Your task to perform on an android device: change your default location settings in chrome Image 0: 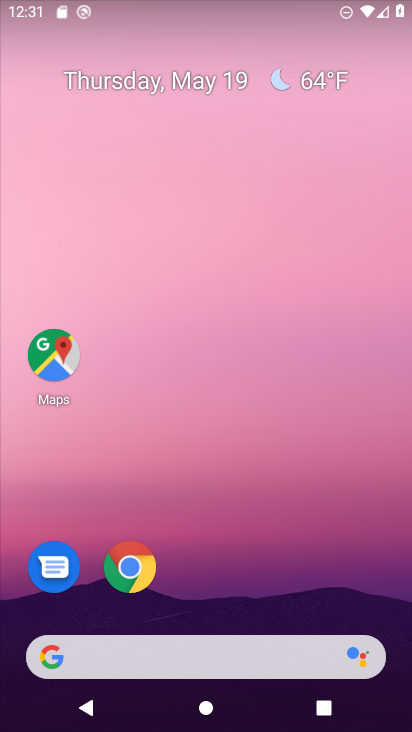
Step 0: click (139, 583)
Your task to perform on an android device: change your default location settings in chrome Image 1: 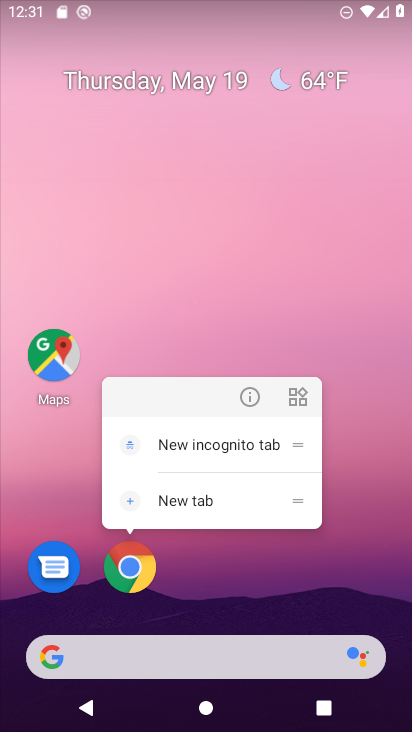
Step 1: click (134, 566)
Your task to perform on an android device: change your default location settings in chrome Image 2: 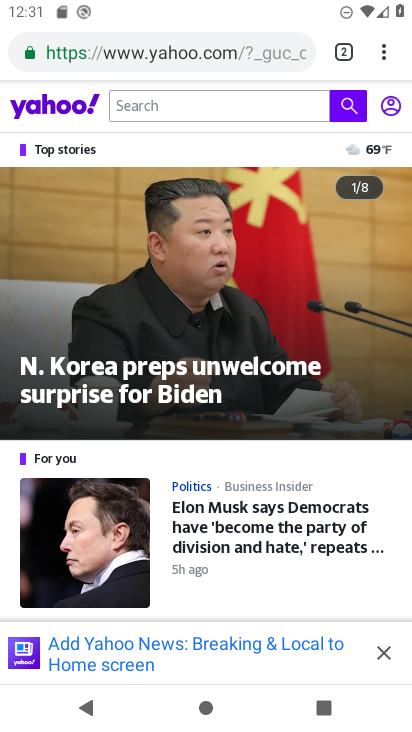
Step 2: drag from (384, 52) to (208, 613)
Your task to perform on an android device: change your default location settings in chrome Image 3: 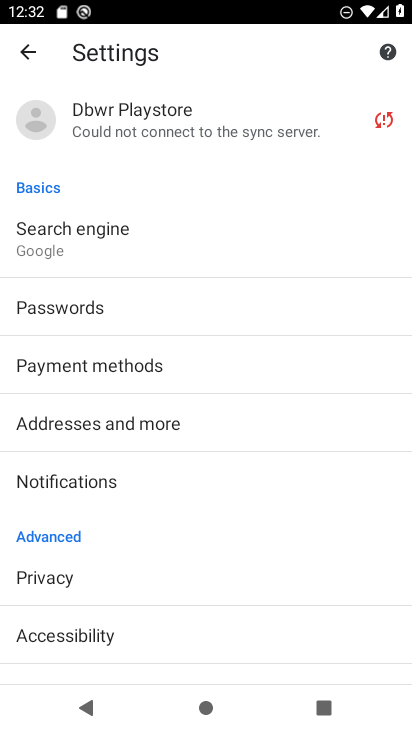
Step 3: drag from (195, 609) to (186, 351)
Your task to perform on an android device: change your default location settings in chrome Image 4: 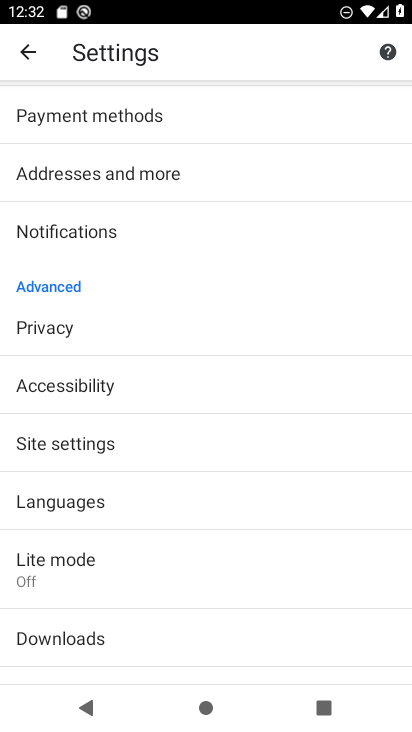
Step 4: click (84, 453)
Your task to perform on an android device: change your default location settings in chrome Image 5: 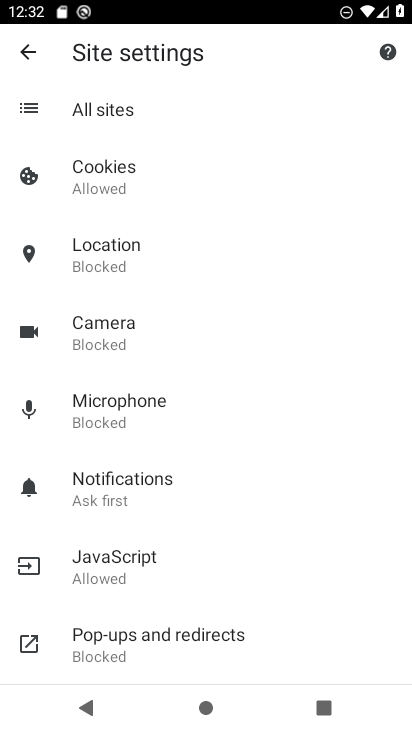
Step 5: click (119, 264)
Your task to perform on an android device: change your default location settings in chrome Image 6: 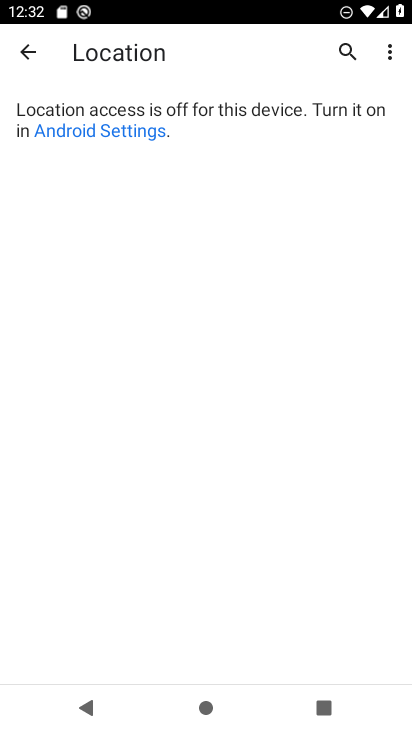
Step 6: task complete